Your task to perform on an android device: Open display settings Image 0: 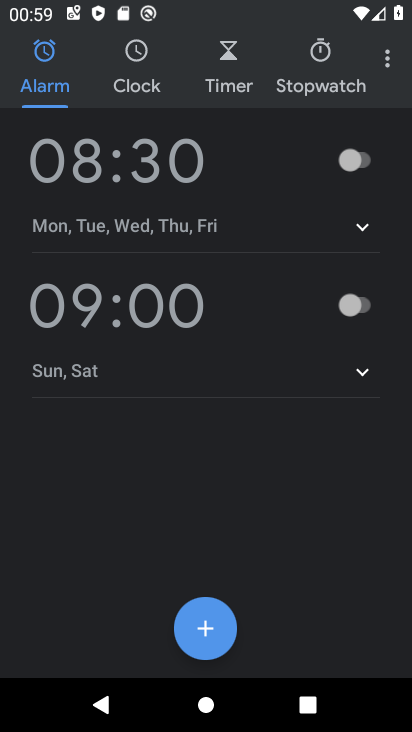
Step 0: press home button
Your task to perform on an android device: Open display settings Image 1: 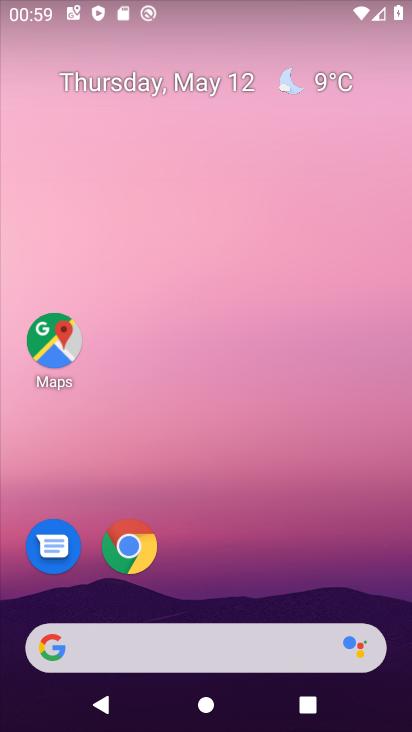
Step 1: drag from (209, 595) to (230, 213)
Your task to perform on an android device: Open display settings Image 2: 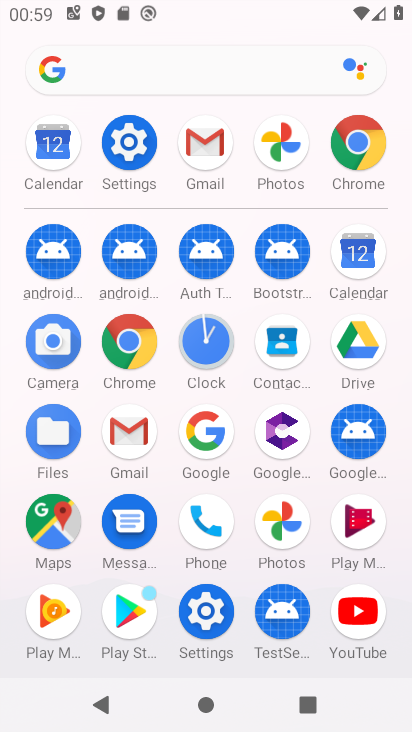
Step 2: click (124, 152)
Your task to perform on an android device: Open display settings Image 3: 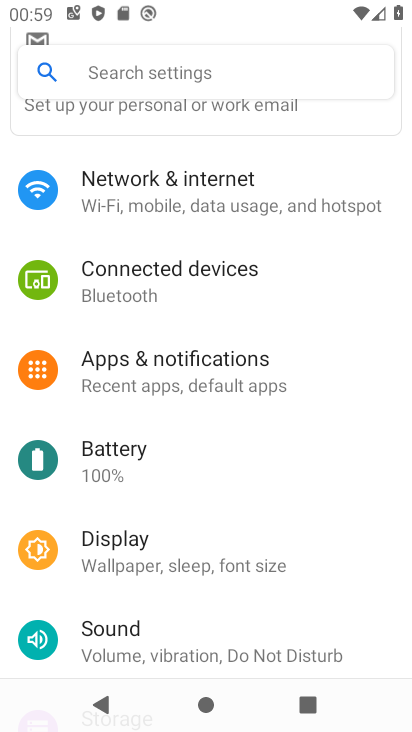
Step 3: click (157, 547)
Your task to perform on an android device: Open display settings Image 4: 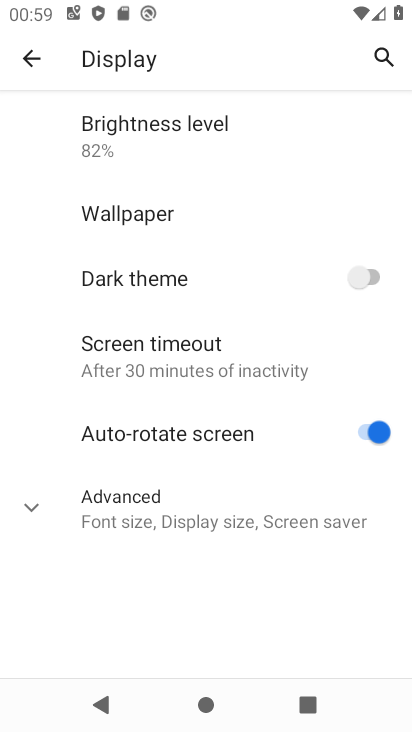
Step 4: task complete